Your task to perform on an android device: open app "Airtel Thanks" (install if not already installed) Image 0: 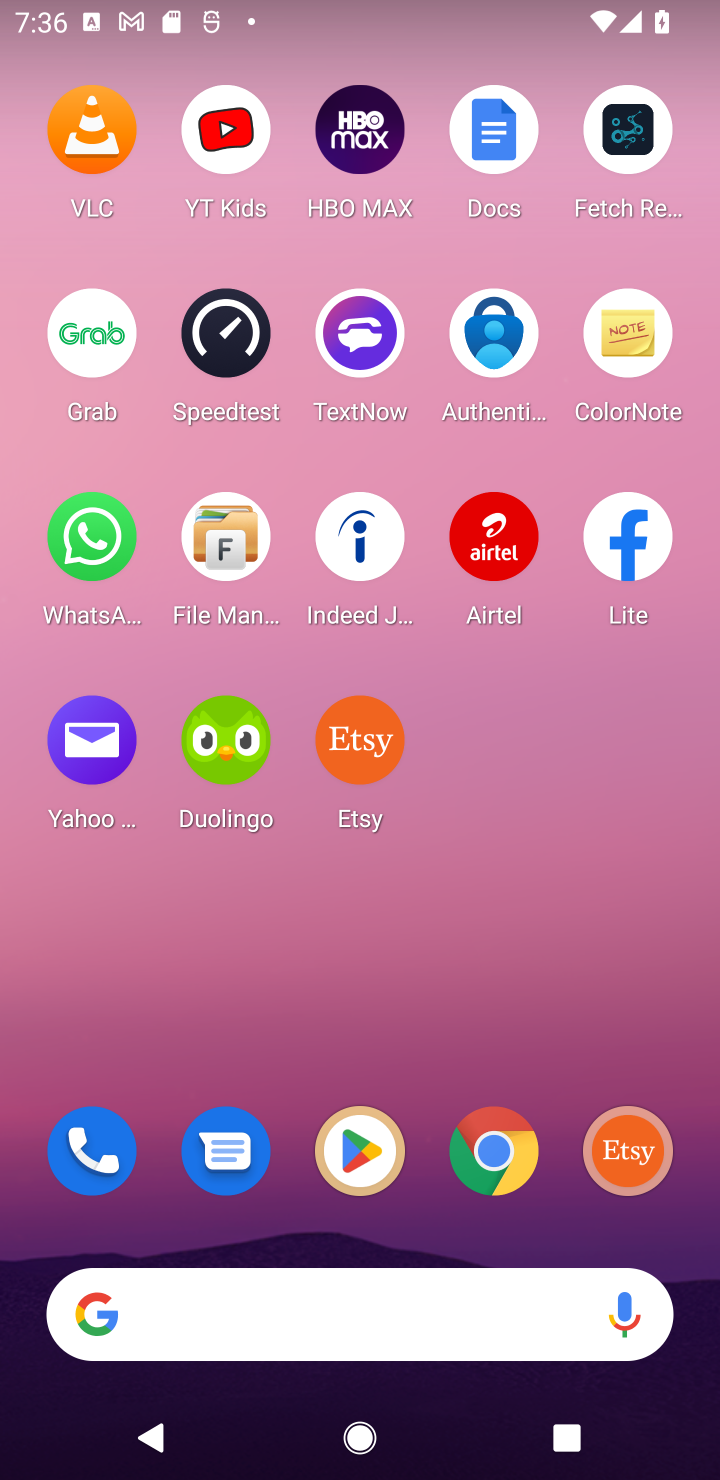
Step 0: press home button
Your task to perform on an android device: open app "Airtel Thanks" (install if not already installed) Image 1: 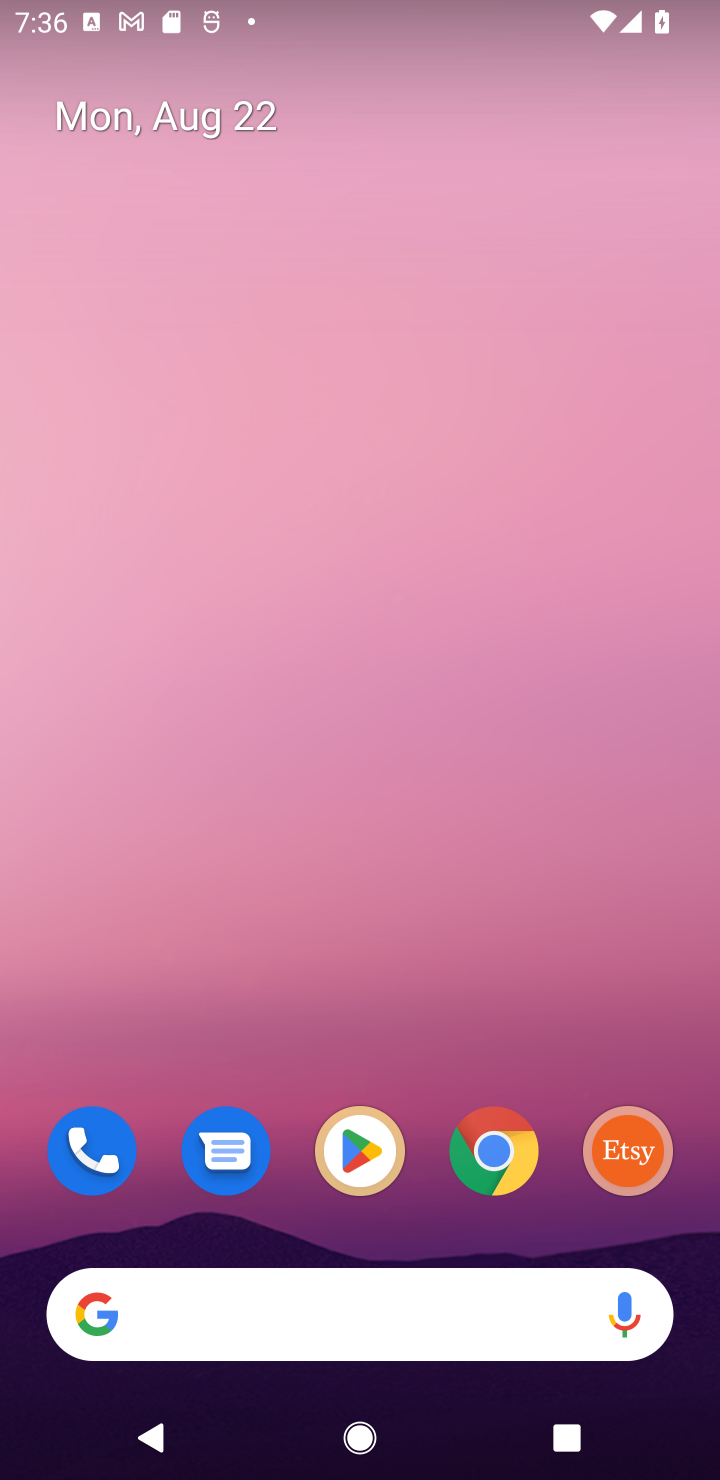
Step 1: click (363, 1157)
Your task to perform on an android device: open app "Airtel Thanks" (install if not already installed) Image 2: 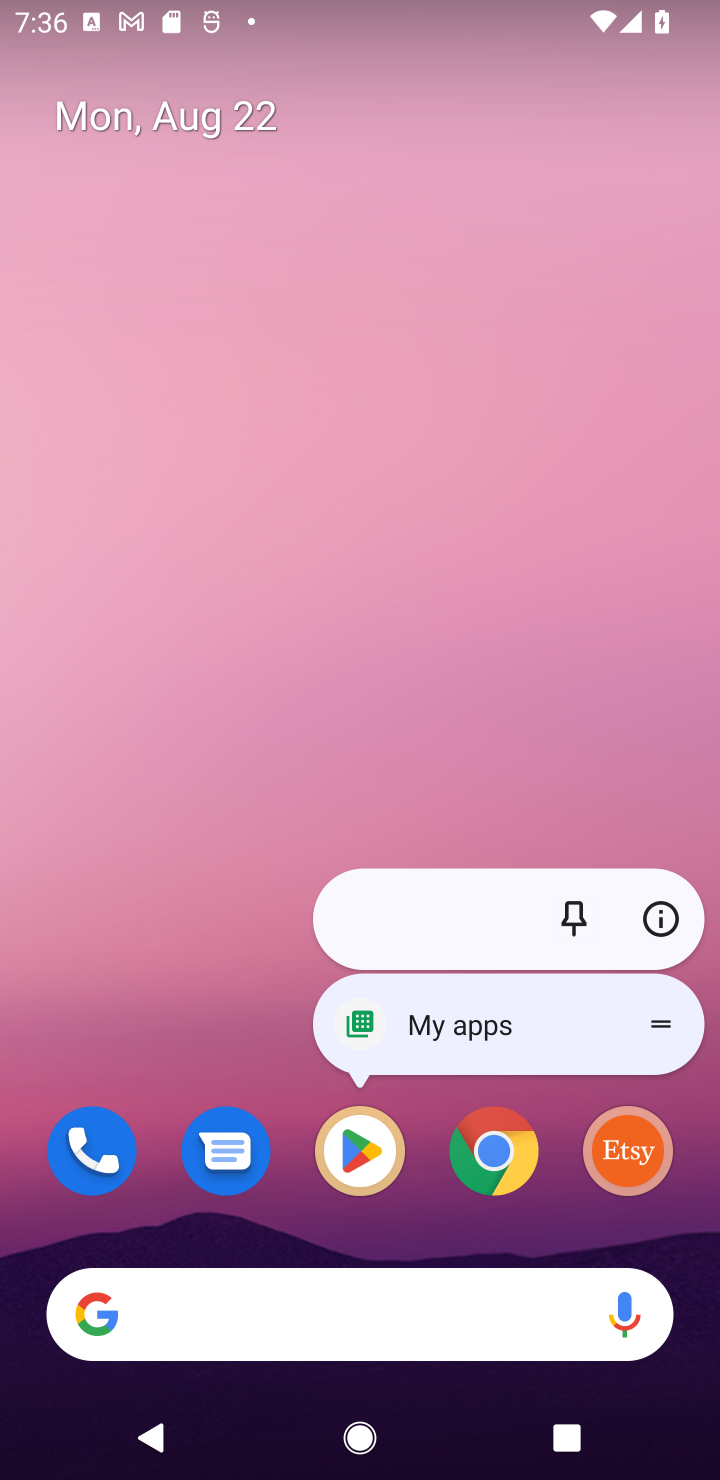
Step 2: click (363, 1164)
Your task to perform on an android device: open app "Airtel Thanks" (install if not already installed) Image 3: 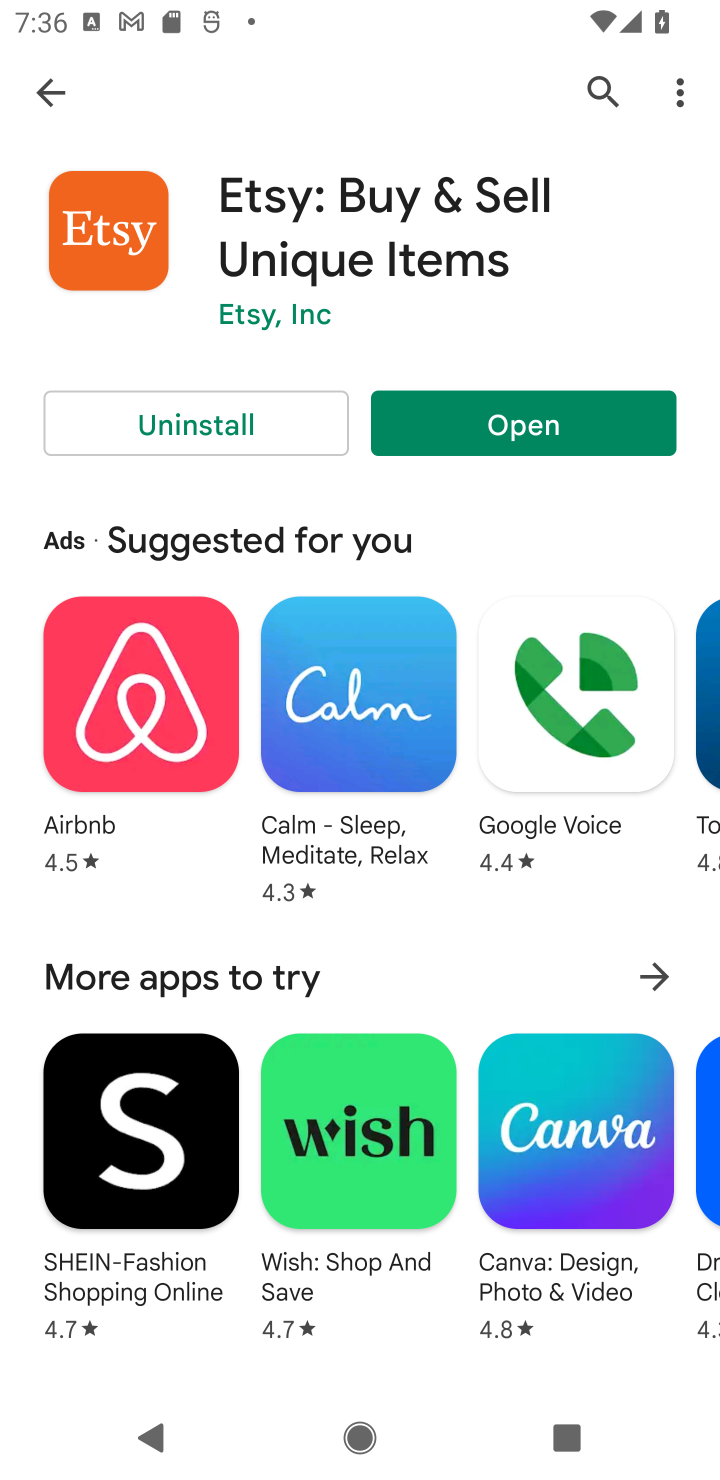
Step 3: click (597, 80)
Your task to perform on an android device: open app "Airtel Thanks" (install if not already installed) Image 4: 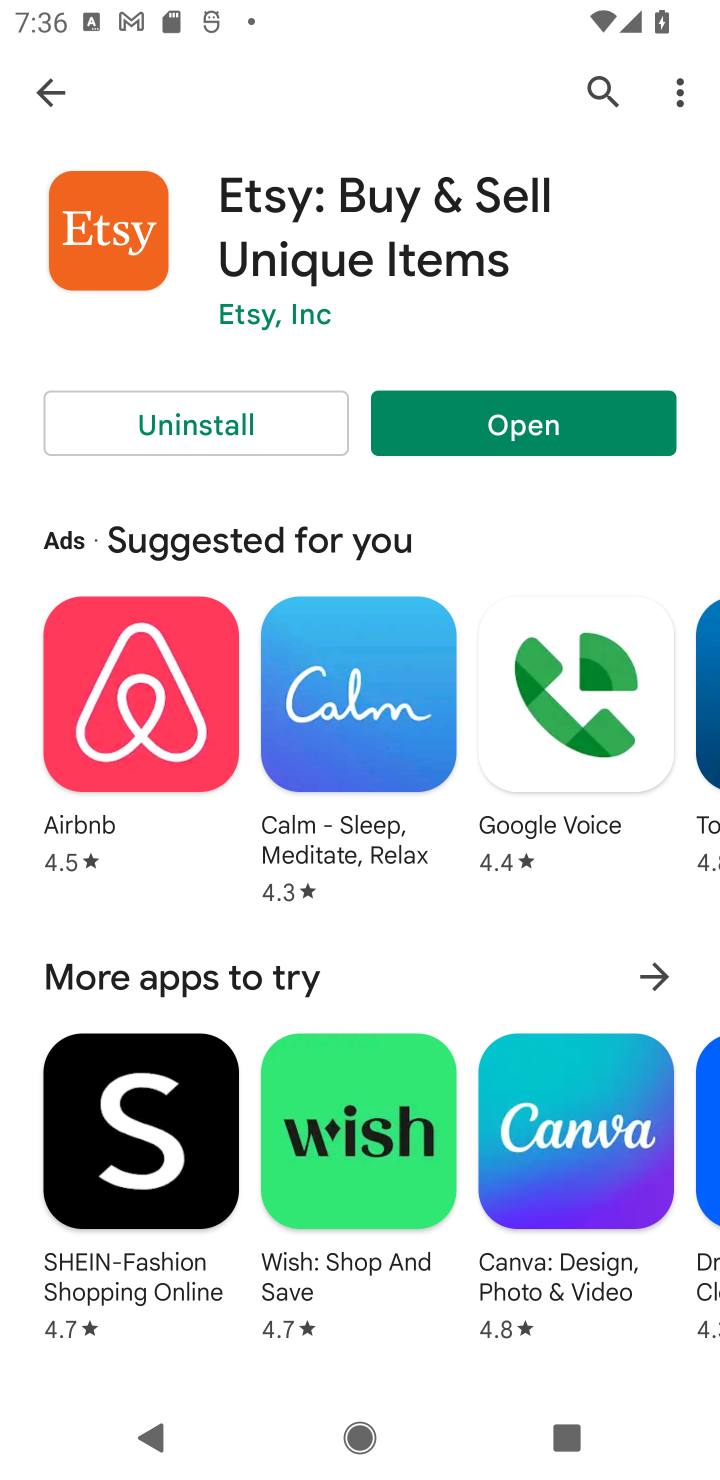
Step 4: click (585, 91)
Your task to perform on an android device: open app "Airtel Thanks" (install if not already installed) Image 5: 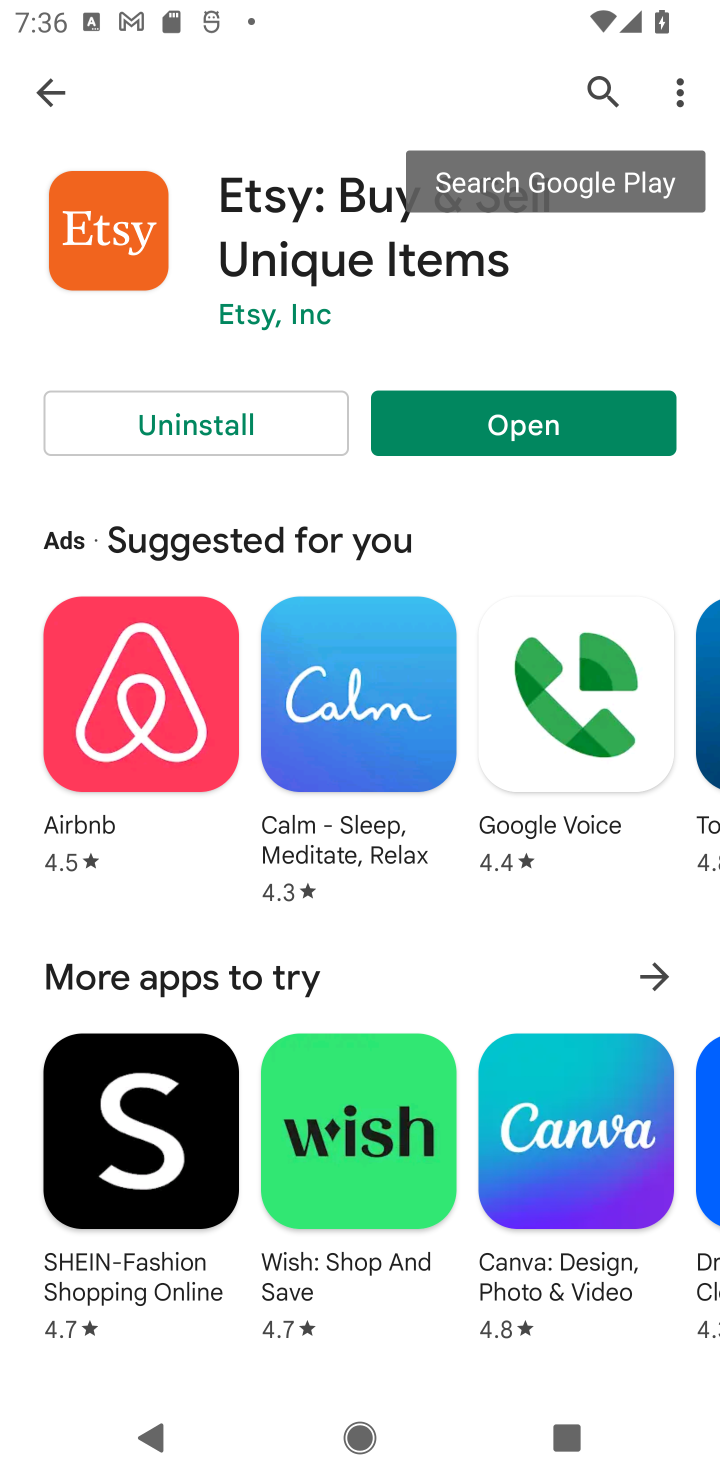
Step 5: click (604, 75)
Your task to perform on an android device: open app "Airtel Thanks" (install if not already installed) Image 6: 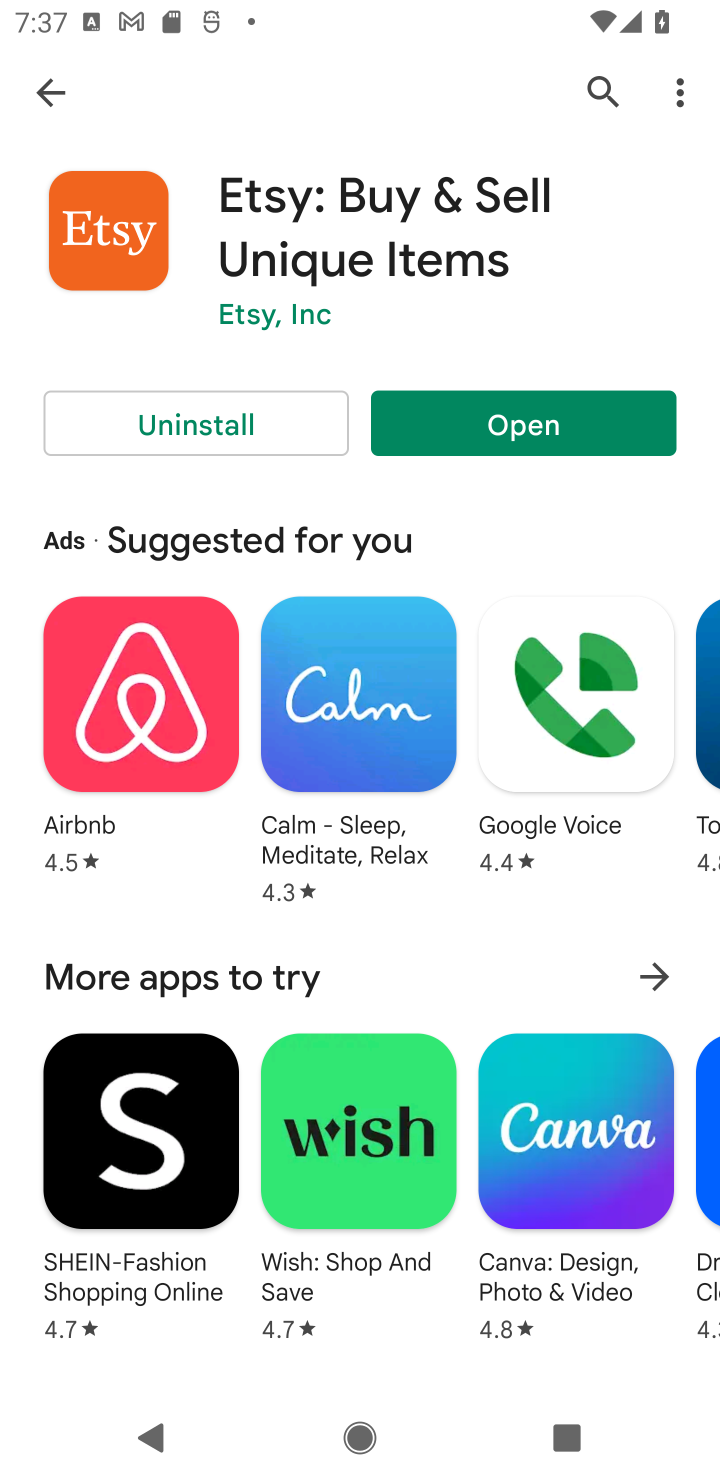
Step 6: click (49, 93)
Your task to perform on an android device: open app "Airtel Thanks" (install if not already installed) Image 7: 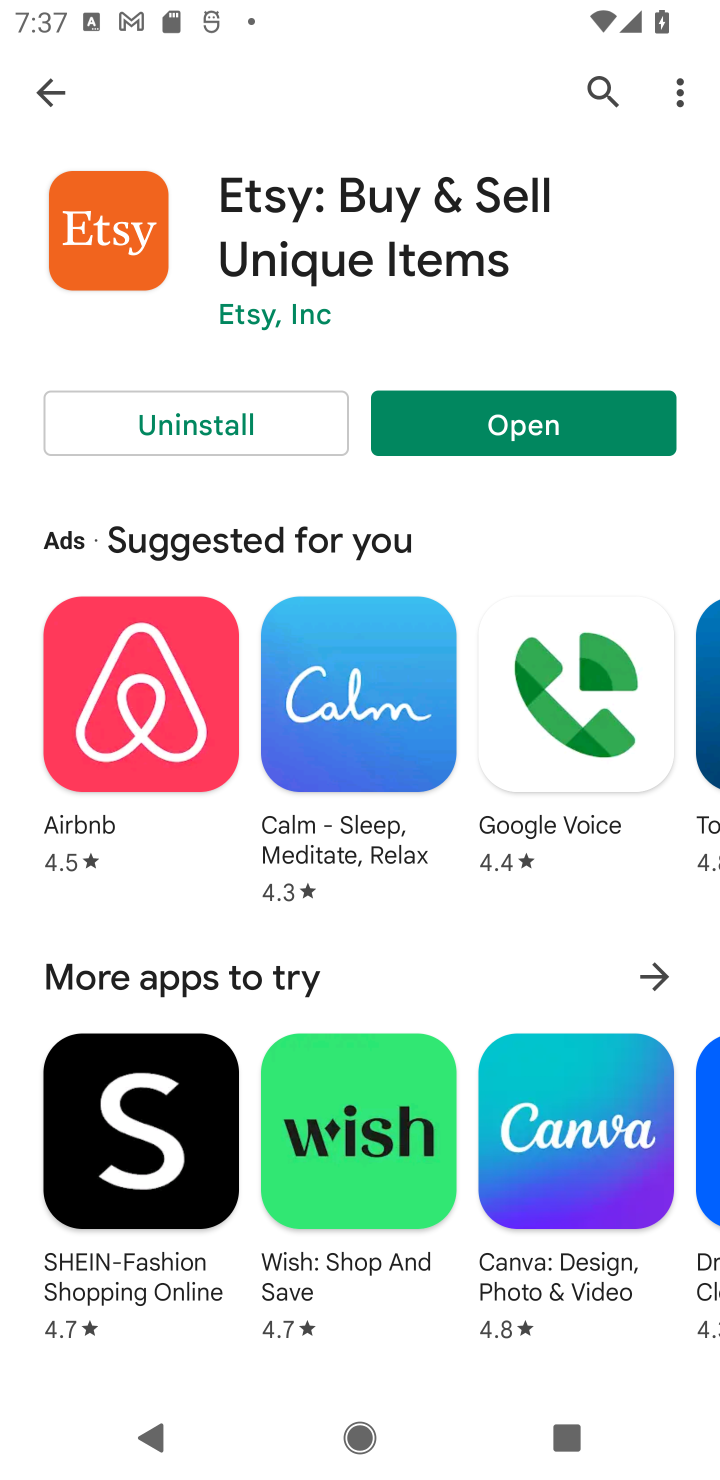
Step 7: click (579, 83)
Your task to perform on an android device: open app "Airtel Thanks" (install if not already installed) Image 8: 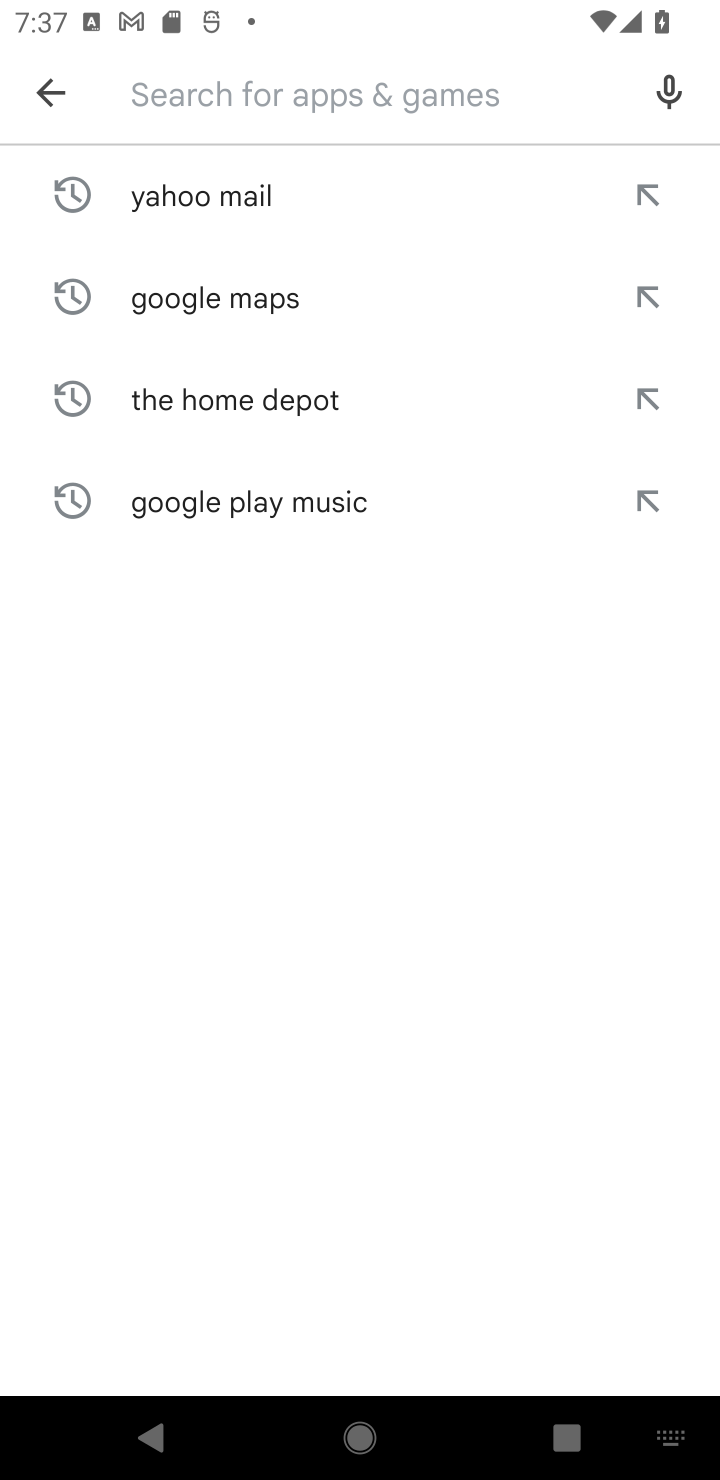
Step 8: type "Airtel Thanks"
Your task to perform on an android device: open app "Airtel Thanks" (install if not already installed) Image 9: 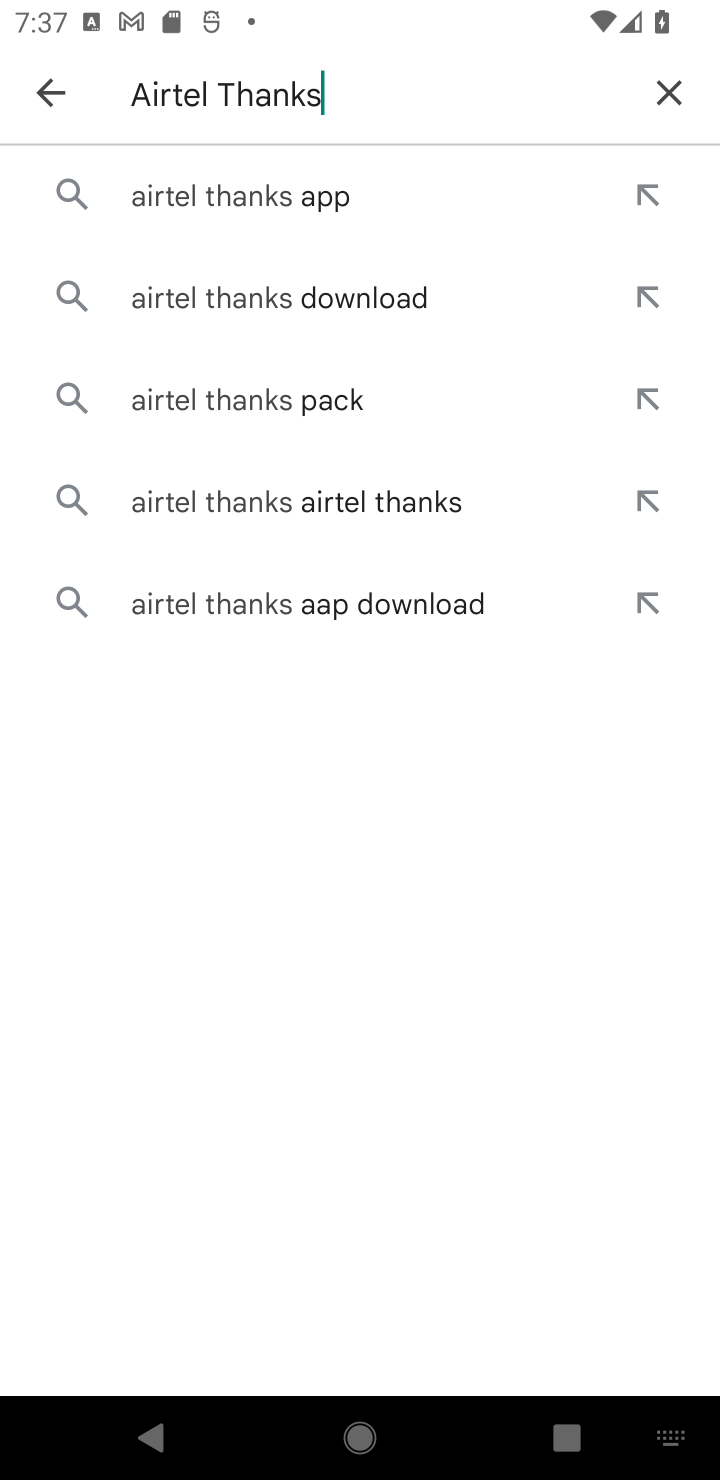
Step 9: click (203, 192)
Your task to perform on an android device: open app "Airtel Thanks" (install if not already installed) Image 10: 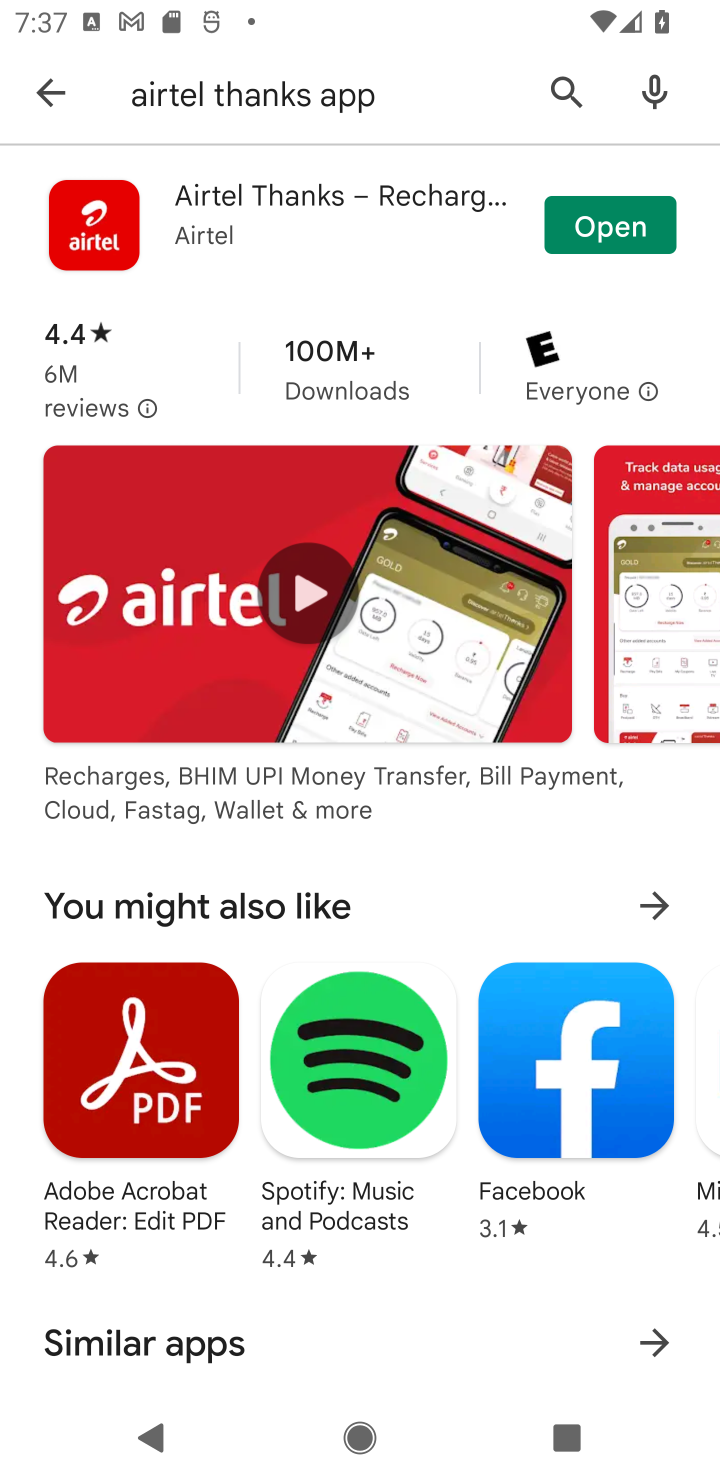
Step 10: click (606, 231)
Your task to perform on an android device: open app "Airtel Thanks" (install if not already installed) Image 11: 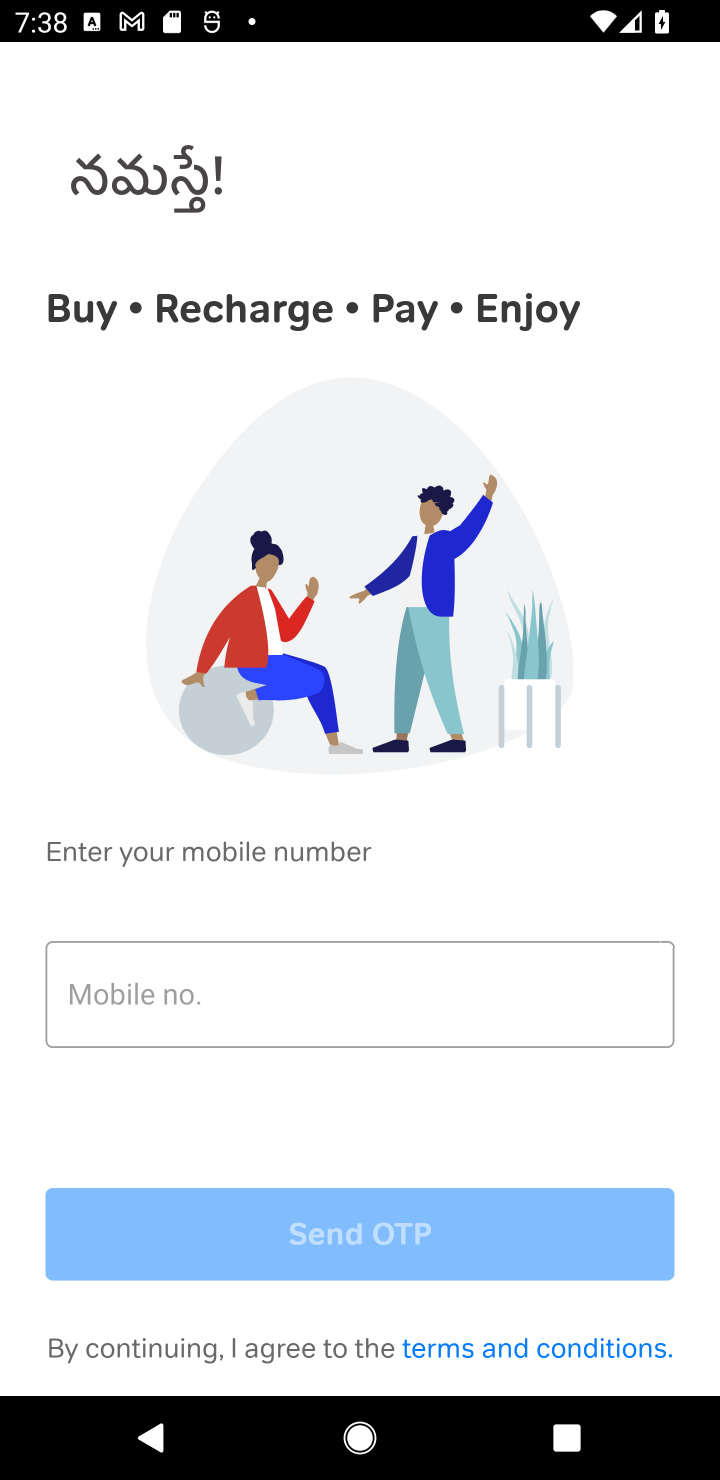
Step 11: task complete